Your task to perform on an android device: Go to ESPN.com Image 0: 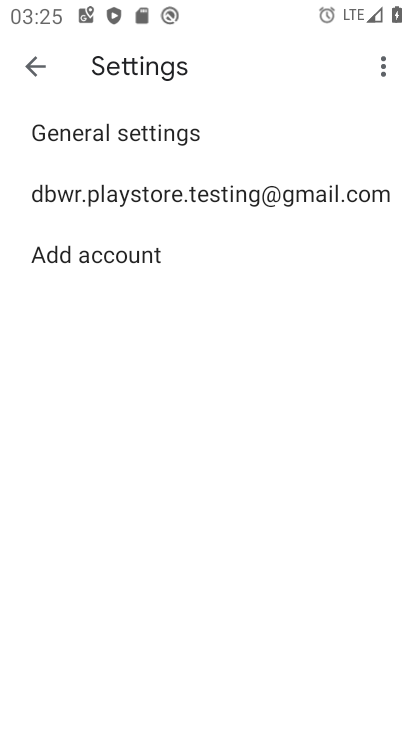
Step 0: press home button
Your task to perform on an android device: Go to ESPN.com Image 1: 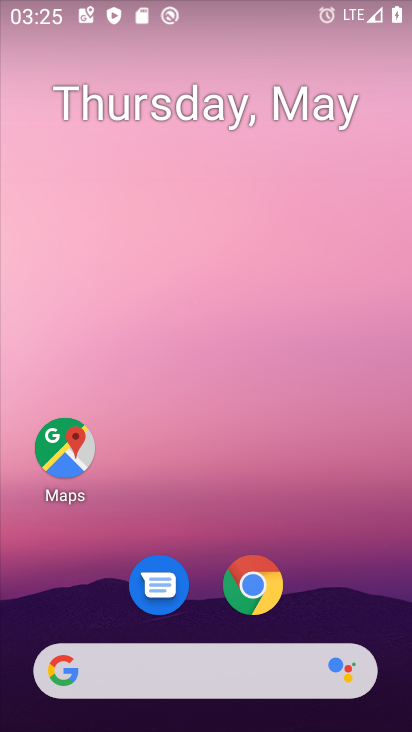
Step 1: click (238, 671)
Your task to perform on an android device: Go to ESPN.com Image 2: 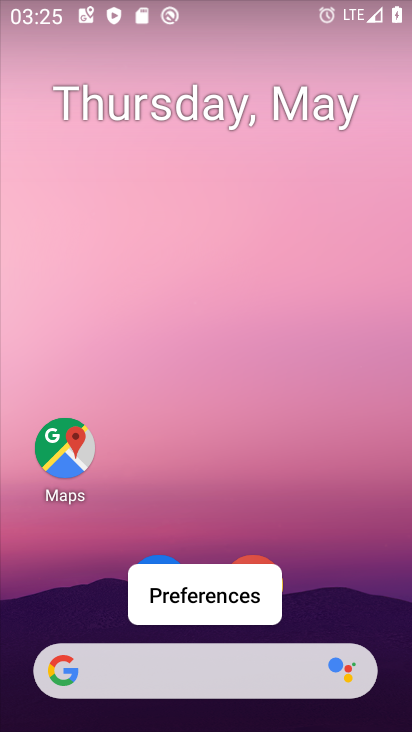
Step 2: click (165, 666)
Your task to perform on an android device: Go to ESPN.com Image 3: 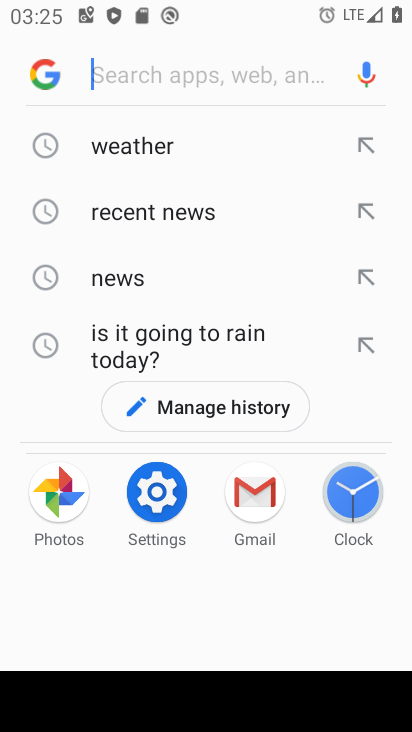
Step 3: type "espn.com"
Your task to perform on an android device: Go to ESPN.com Image 4: 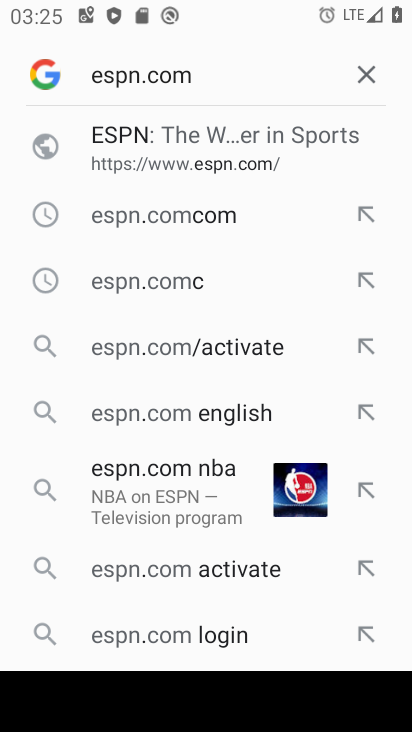
Step 4: click (154, 129)
Your task to perform on an android device: Go to ESPN.com Image 5: 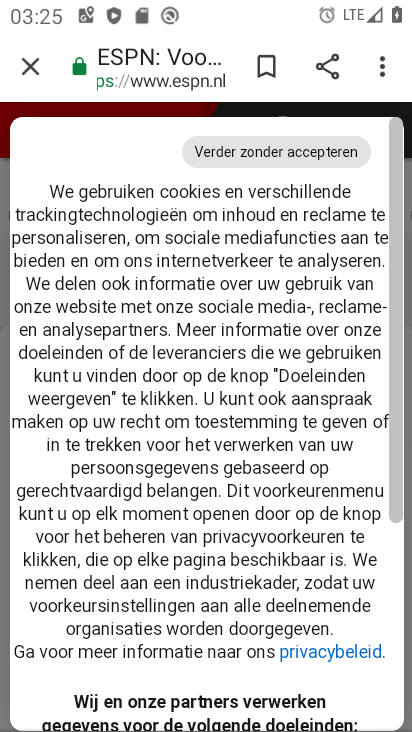
Step 5: task complete